Your task to perform on an android device: Open privacy settings Image 0: 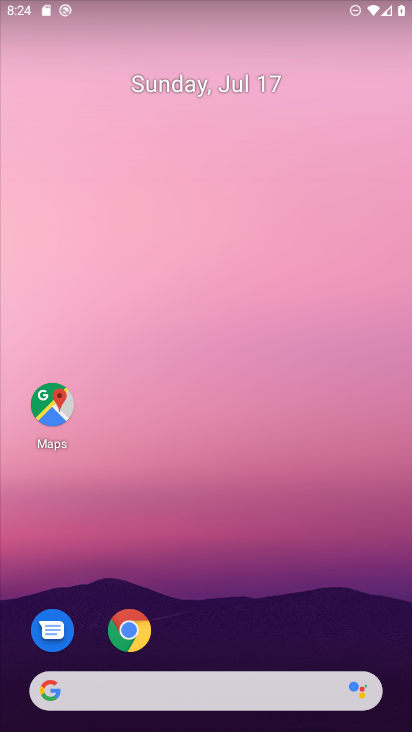
Step 0: drag from (378, 616) to (142, 0)
Your task to perform on an android device: Open privacy settings Image 1: 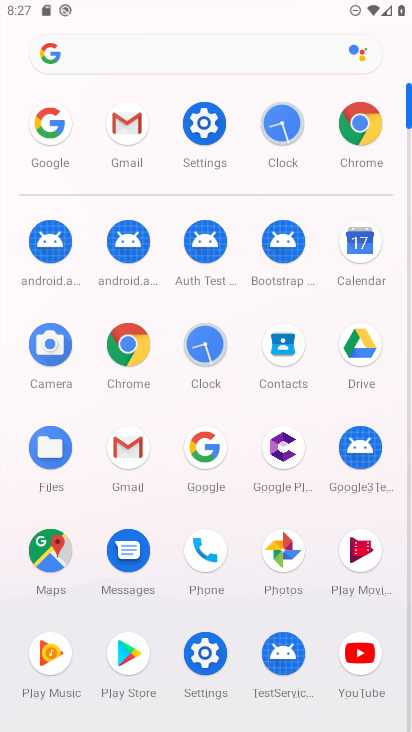
Step 1: click (203, 647)
Your task to perform on an android device: Open privacy settings Image 2: 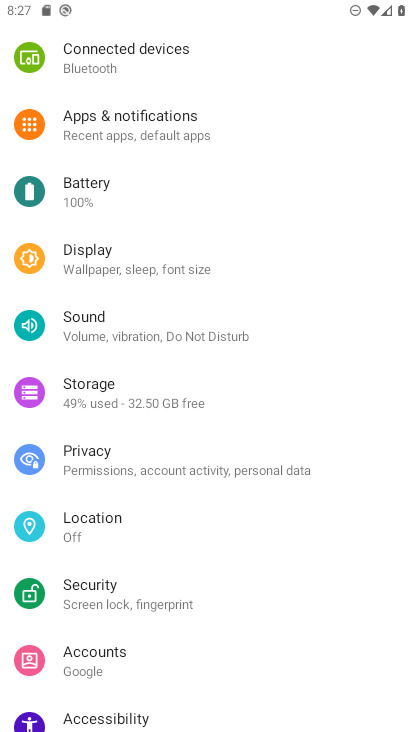
Step 2: click (112, 460)
Your task to perform on an android device: Open privacy settings Image 3: 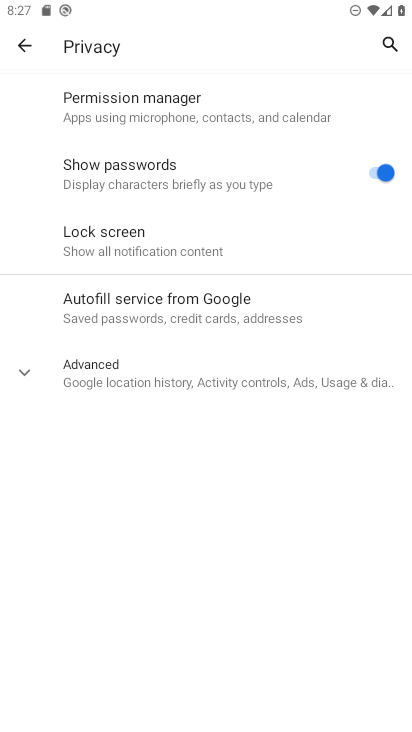
Step 3: task complete